Your task to perform on an android device: snooze an email in the gmail app Image 0: 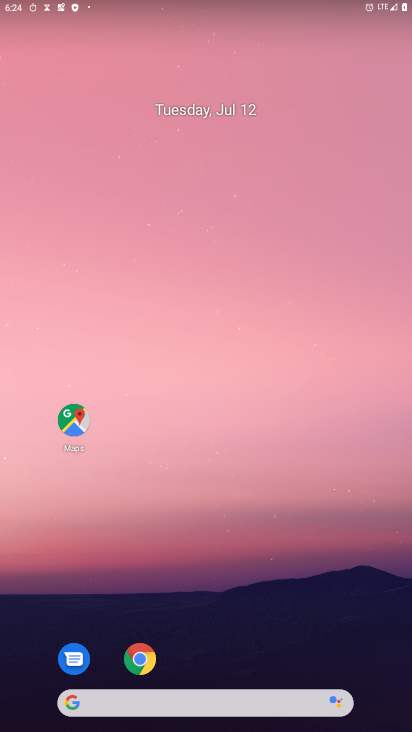
Step 0: drag from (230, 512) to (197, 68)
Your task to perform on an android device: snooze an email in the gmail app Image 1: 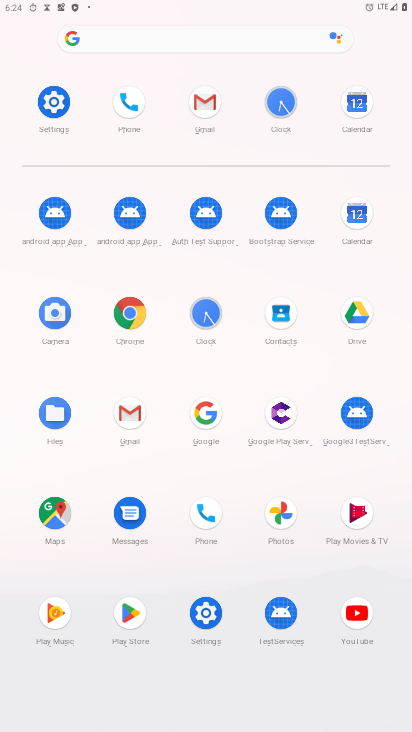
Step 1: click (205, 102)
Your task to perform on an android device: snooze an email in the gmail app Image 2: 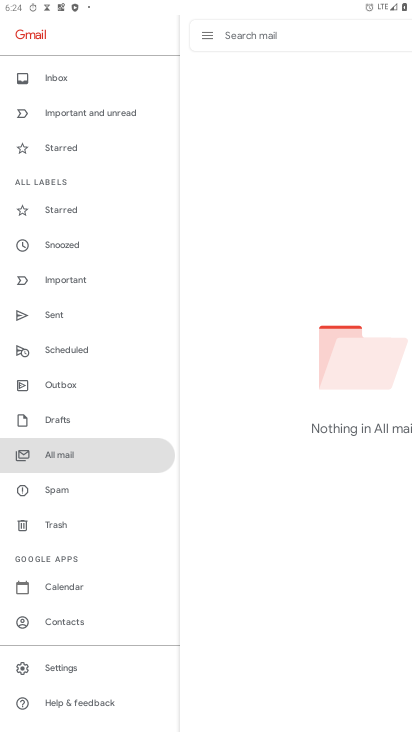
Step 2: task complete